Your task to perform on an android device: check data usage Image 0: 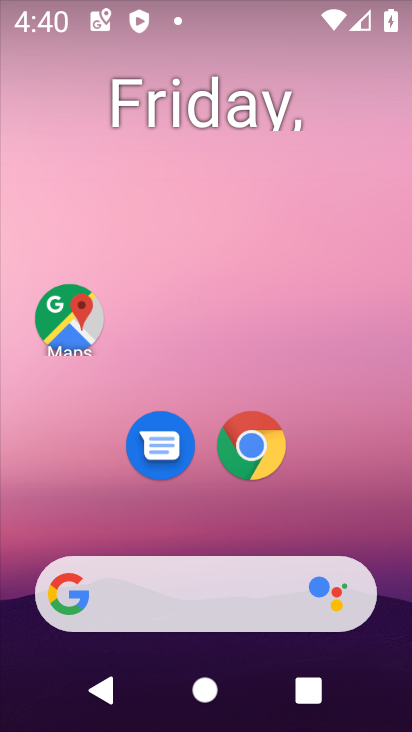
Step 0: drag from (324, 514) to (265, 141)
Your task to perform on an android device: check data usage Image 1: 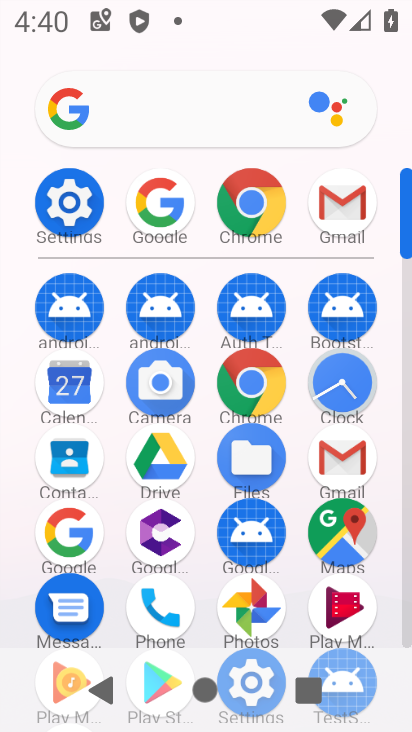
Step 1: click (48, 205)
Your task to perform on an android device: check data usage Image 2: 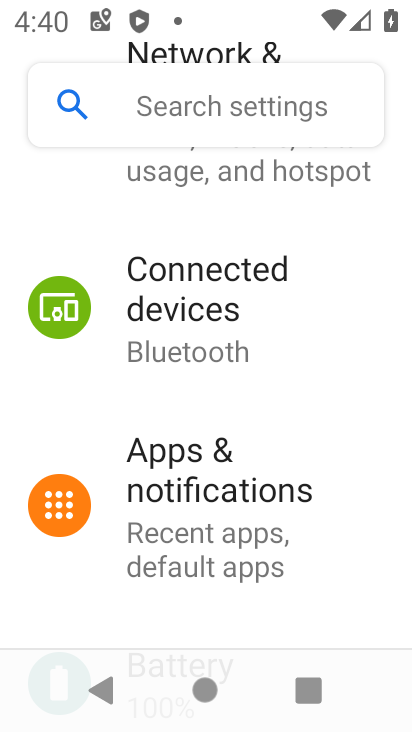
Step 2: drag from (356, 604) to (319, 172)
Your task to perform on an android device: check data usage Image 3: 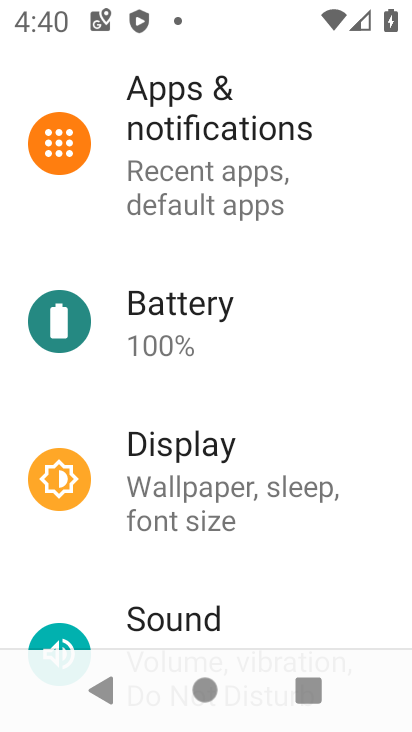
Step 3: drag from (302, 594) to (267, 172)
Your task to perform on an android device: check data usage Image 4: 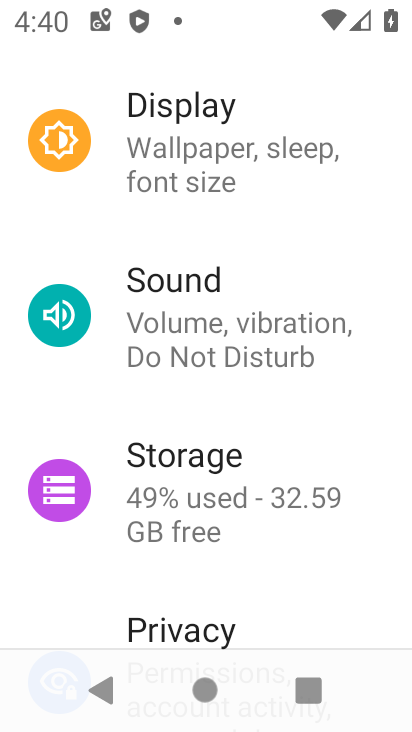
Step 4: drag from (329, 116) to (313, 485)
Your task to perform on an android device: check data usage Image 5: 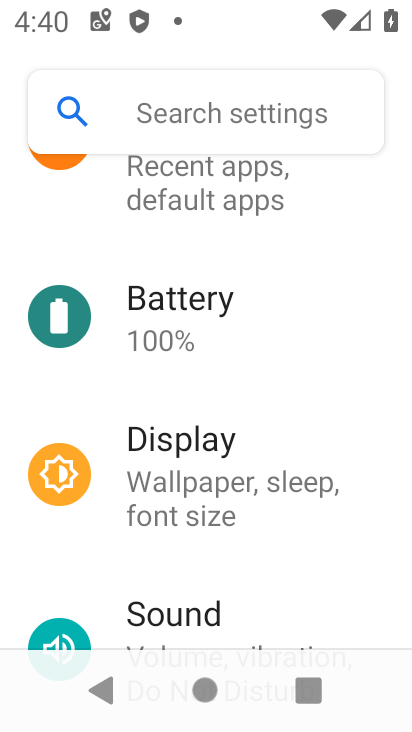
Step 5: drag from (305, 170) to (303, 685)
Your task to perform on an android device: check data usage Image 6: 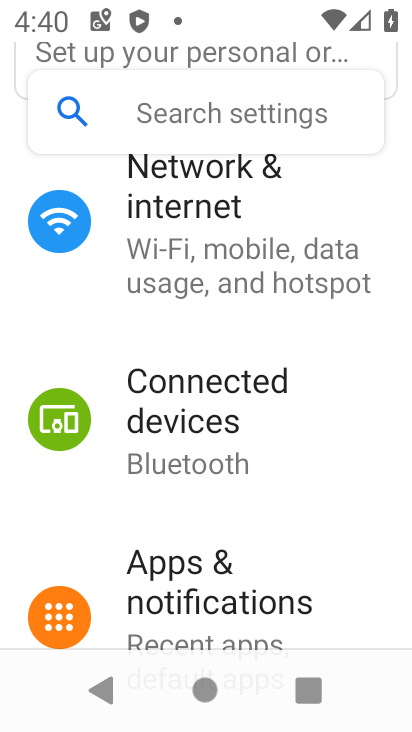
Step 6: click (237, 249)
Your task to perform on an android device: check data usage Image 7: 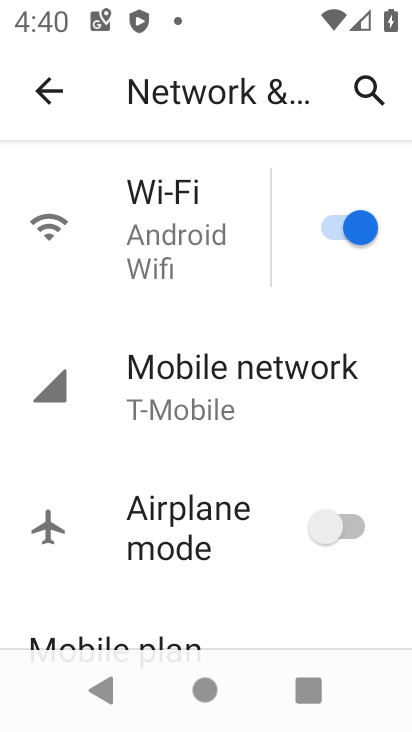
Step 7: click (196, 371)
Your task to perform on an android device: check data usage Image 8: 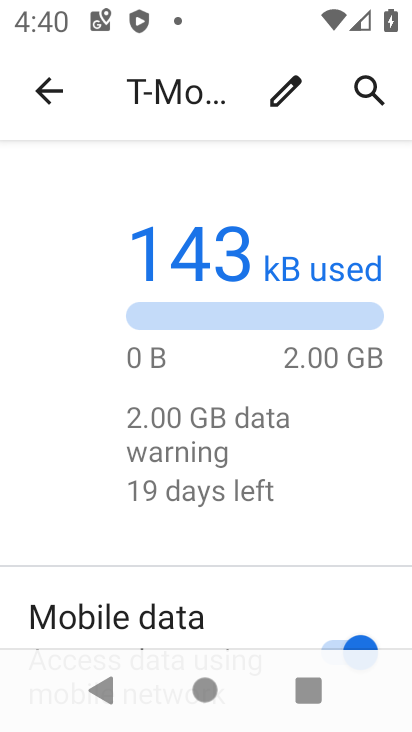
Step 8: task complete